Your task to perform on an android device: Open the map Image 0: 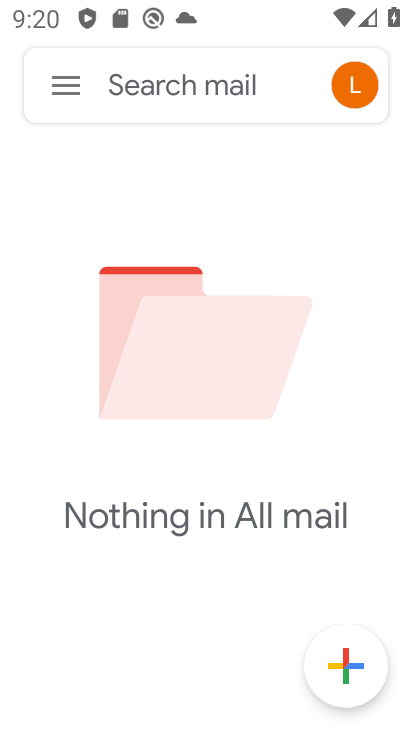
Step 0: press home button
Your task to perform on an android device: Open the map Image 1: 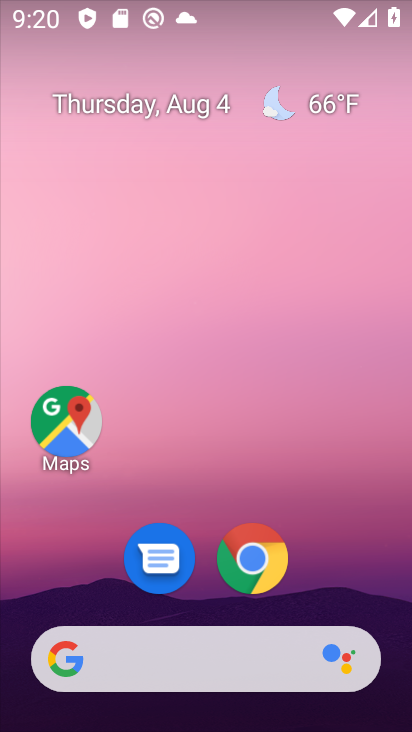
Step 1: drag from (330, 554) to (321, 99)
Your task to perform on an android device: Open the map Image 2: 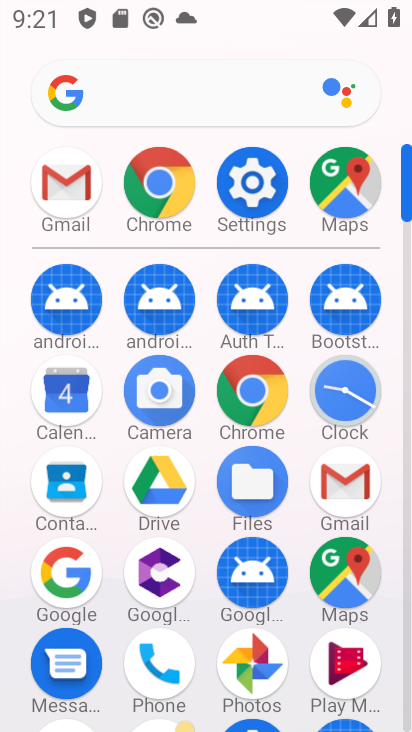
Step 2: click (352, 558)
Your task to perform on an android device: Open the map Image 3: 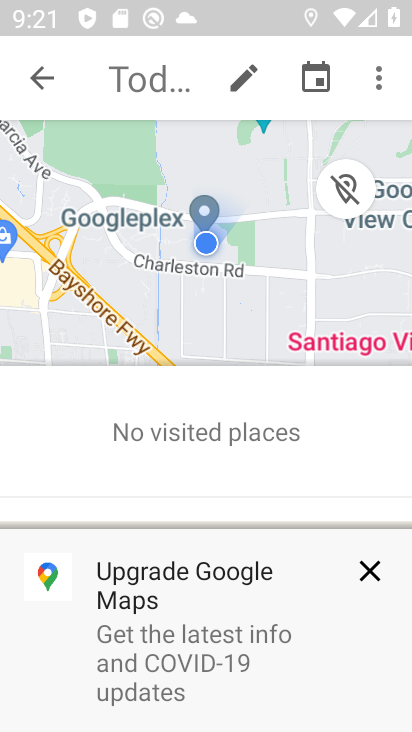
Step 3: task complete